Your task to perform on an android device: uninstall "Google Photos" Image 0: 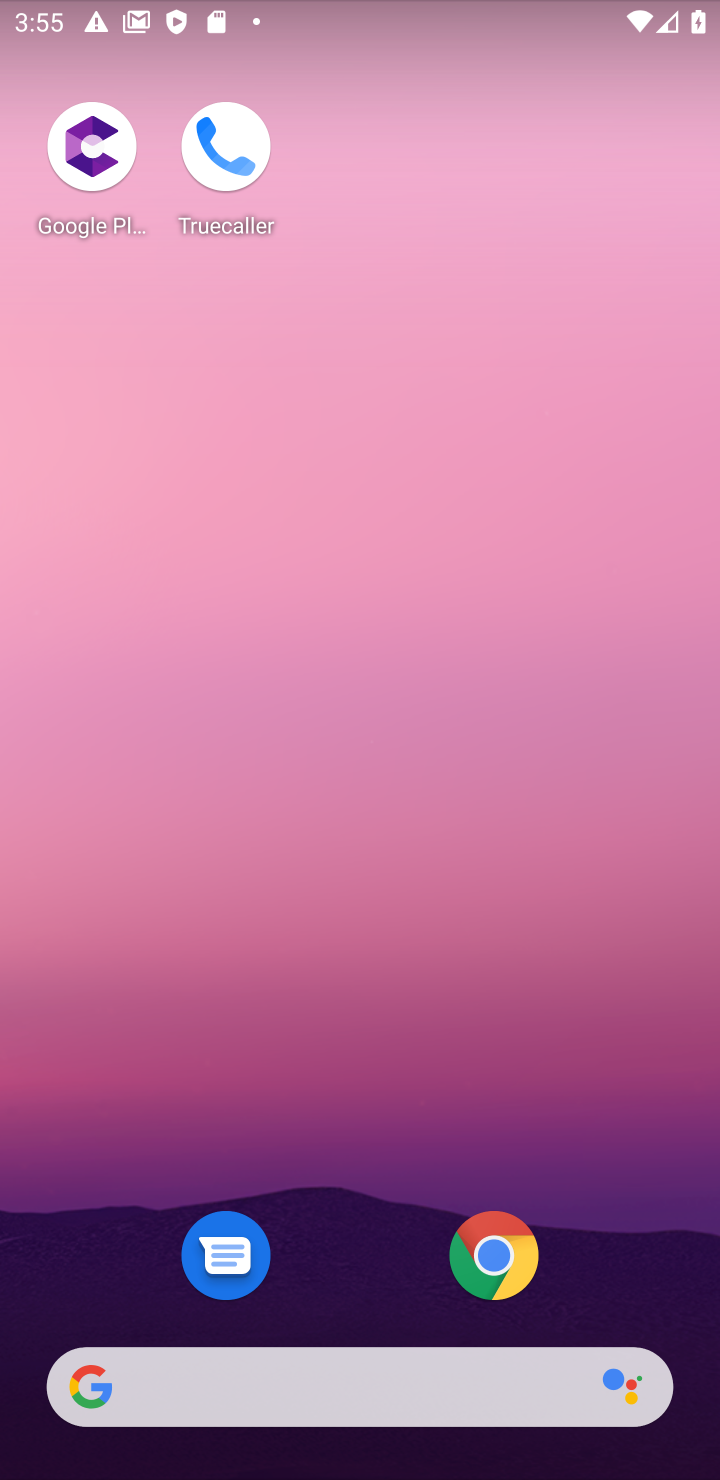
Step 0: drag from (349, 1301) to (338, 211)
Your task to perform on an android device: uninstall "Google Photos" Image 1: 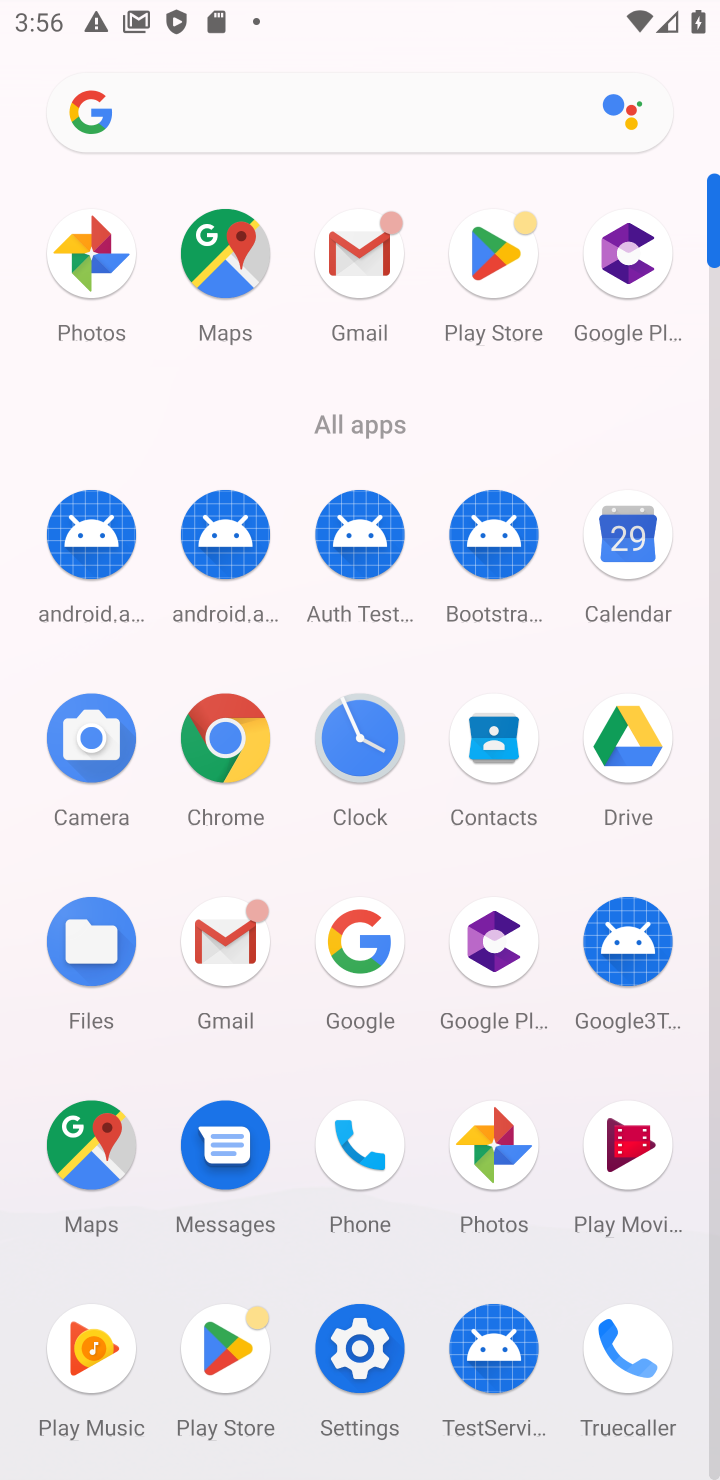
Step 1: task complete